Your task to perform on an android device: install app "Booking.com: Hotels and more" Image 0: 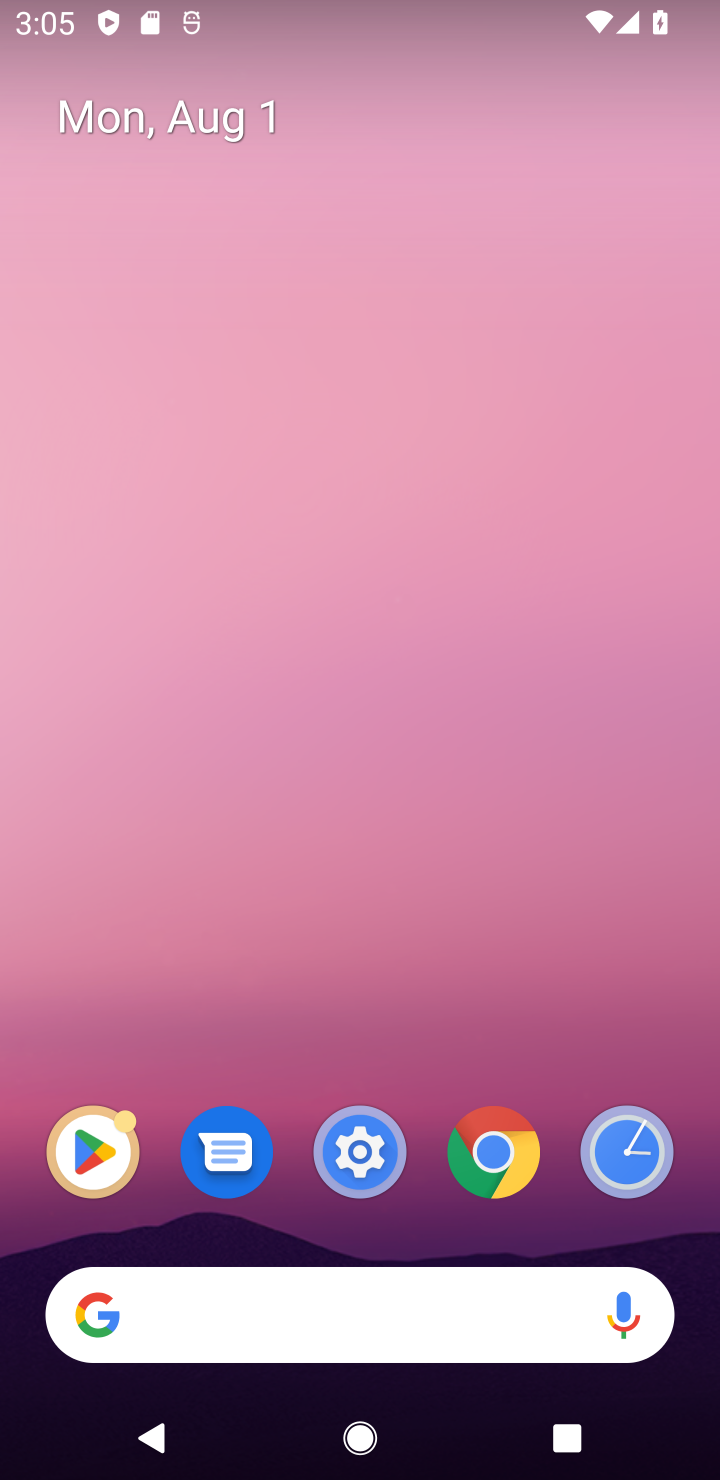
Step 0: click (101, 1141)
Your task to perform on an android device: install app "Booking.com: Hotels and more" Image 1: 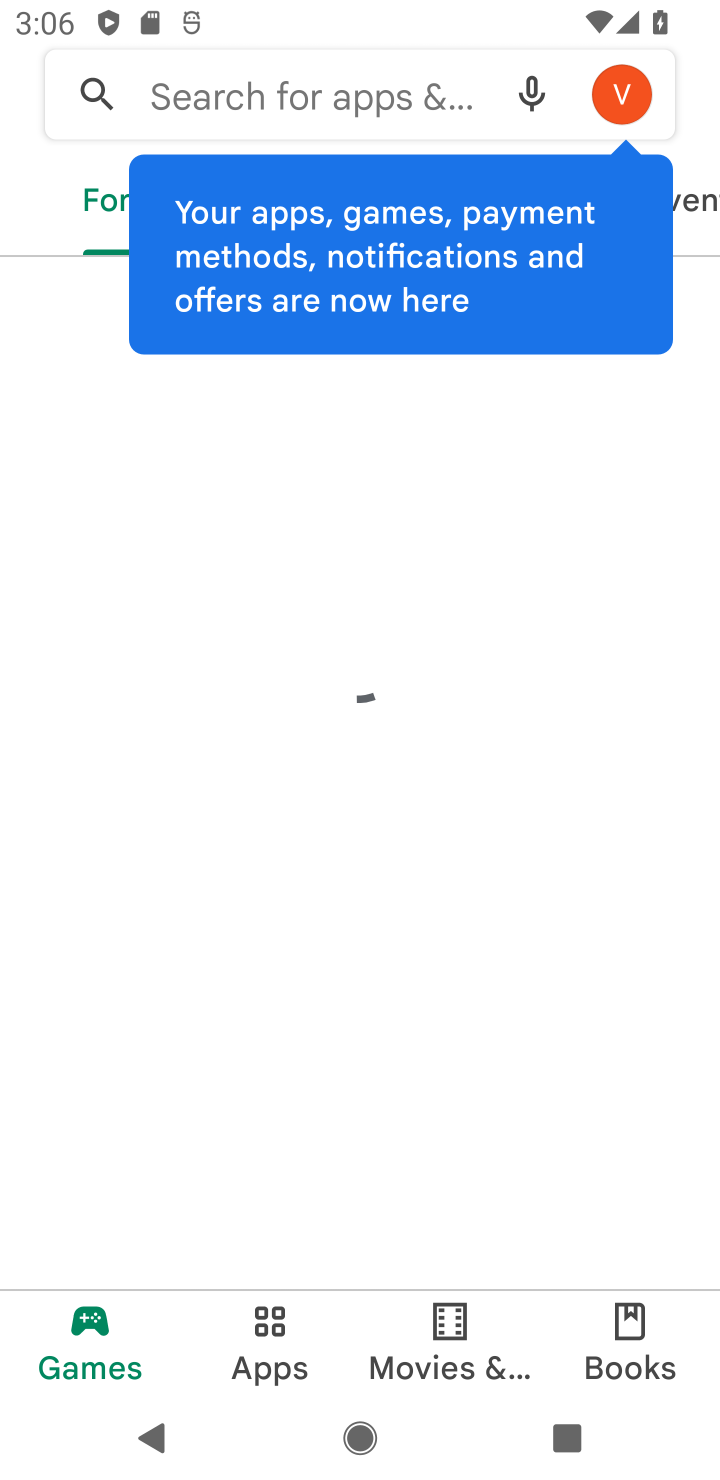
Step 1: click (385, 80)
Your task to perform on an android device: install app "Booking.com: Hotels and more" Image 2: 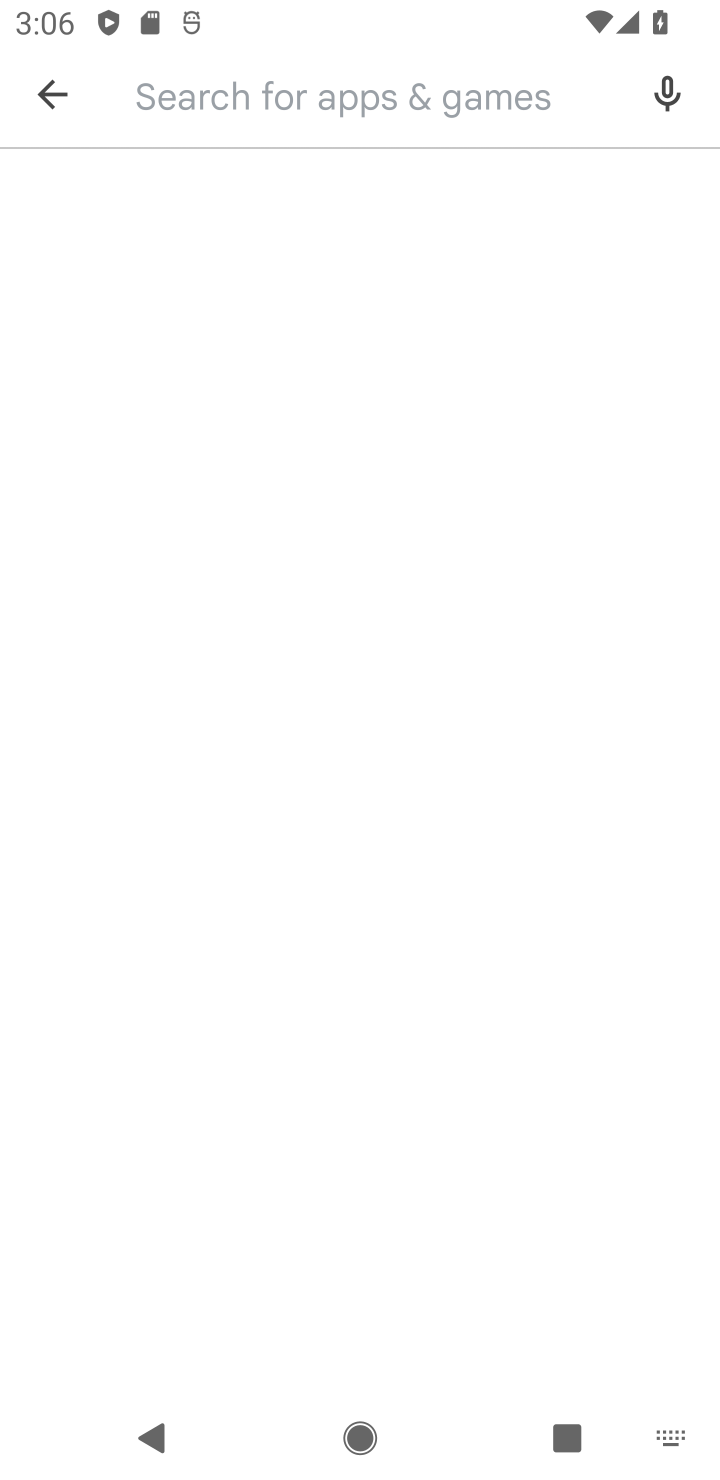
Step 2: drag from (540, 1471) to (691, 1478)
Your task to perform on an android device: install app "Booking.com: Hotels and more" Image 3: 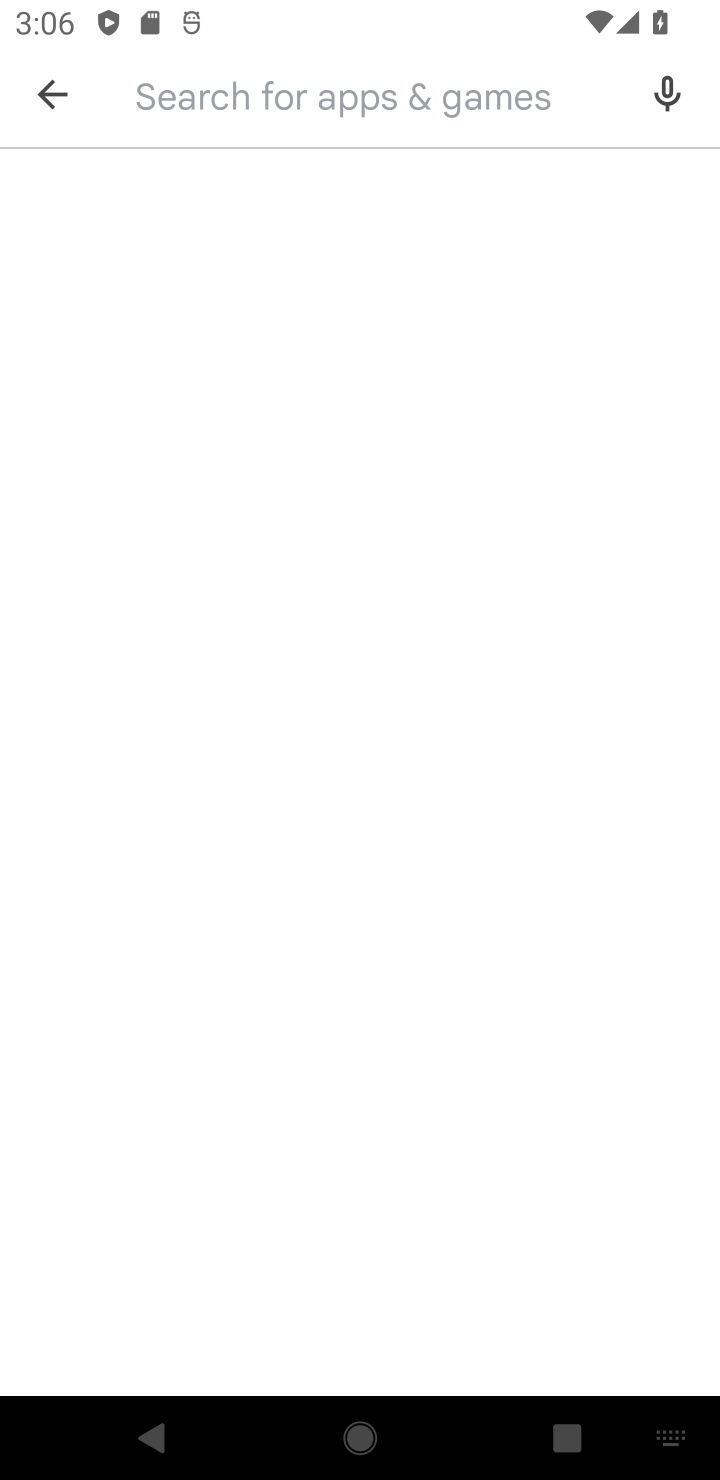
Step 3: type "Booking.com: Hotels and mor"
Your task to perform on an android device: install app "Booking.com: Hotels and more" Image 4: 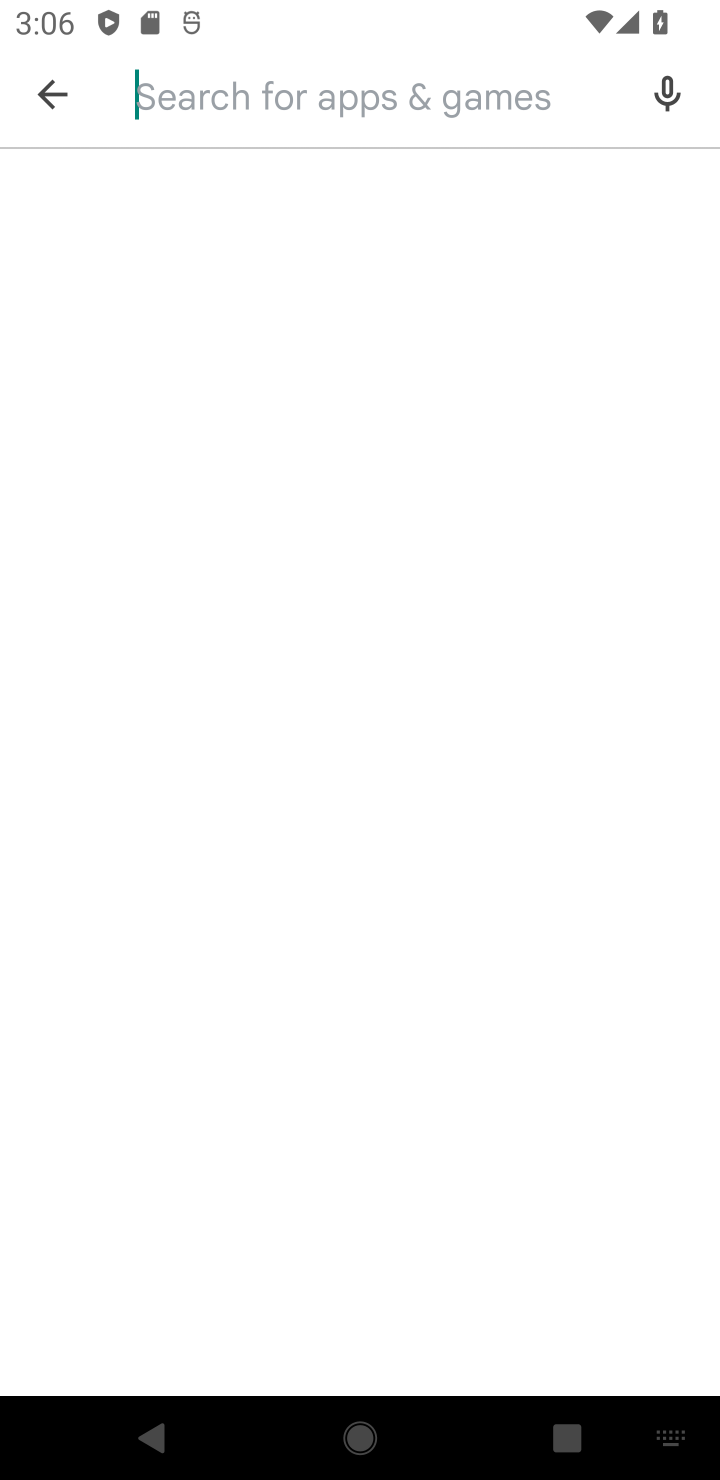
Step 4: click (686, 825)
Your task to perform on an android device: install app "Booking.com: Hotels and more" Image 5: 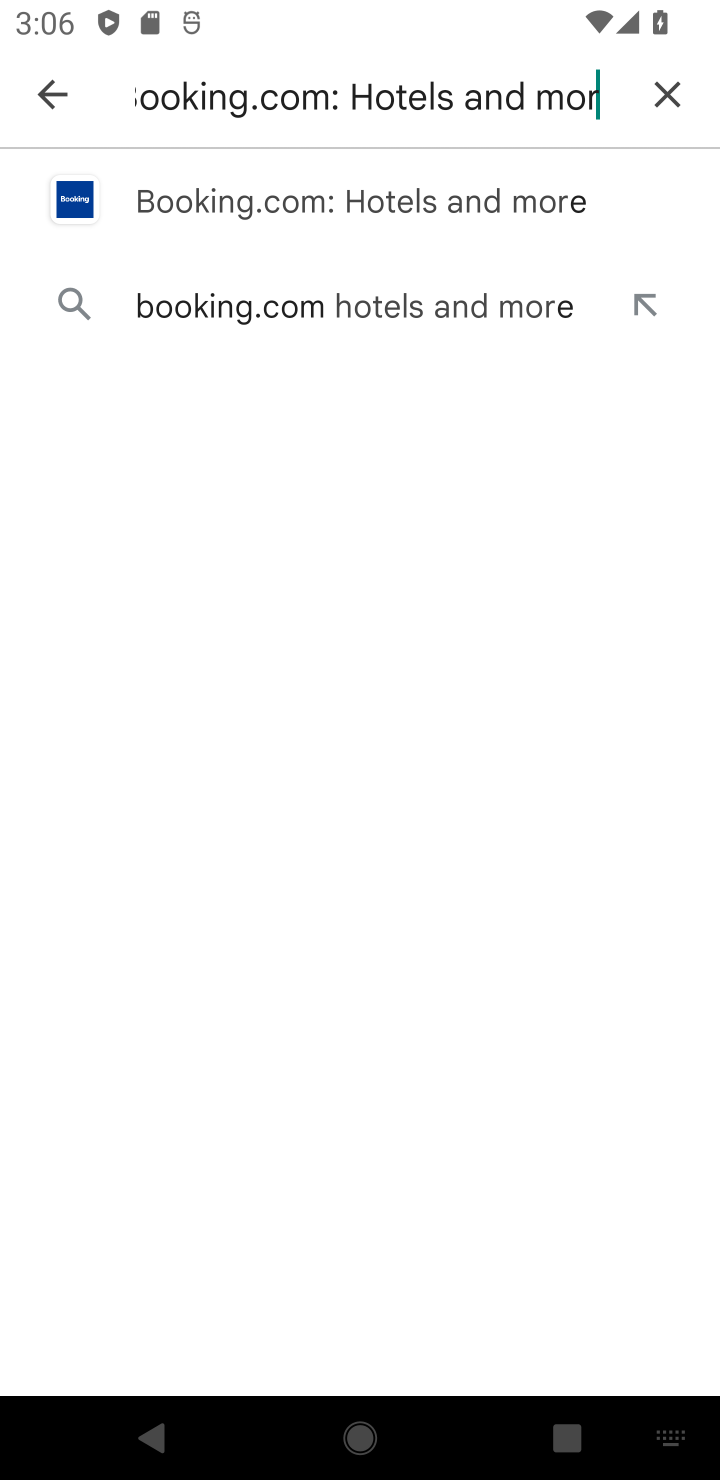
Step 5: click (234, 233)
Your task to perform on an android device: install app "Booking.com: Hotels and more" Image 6: 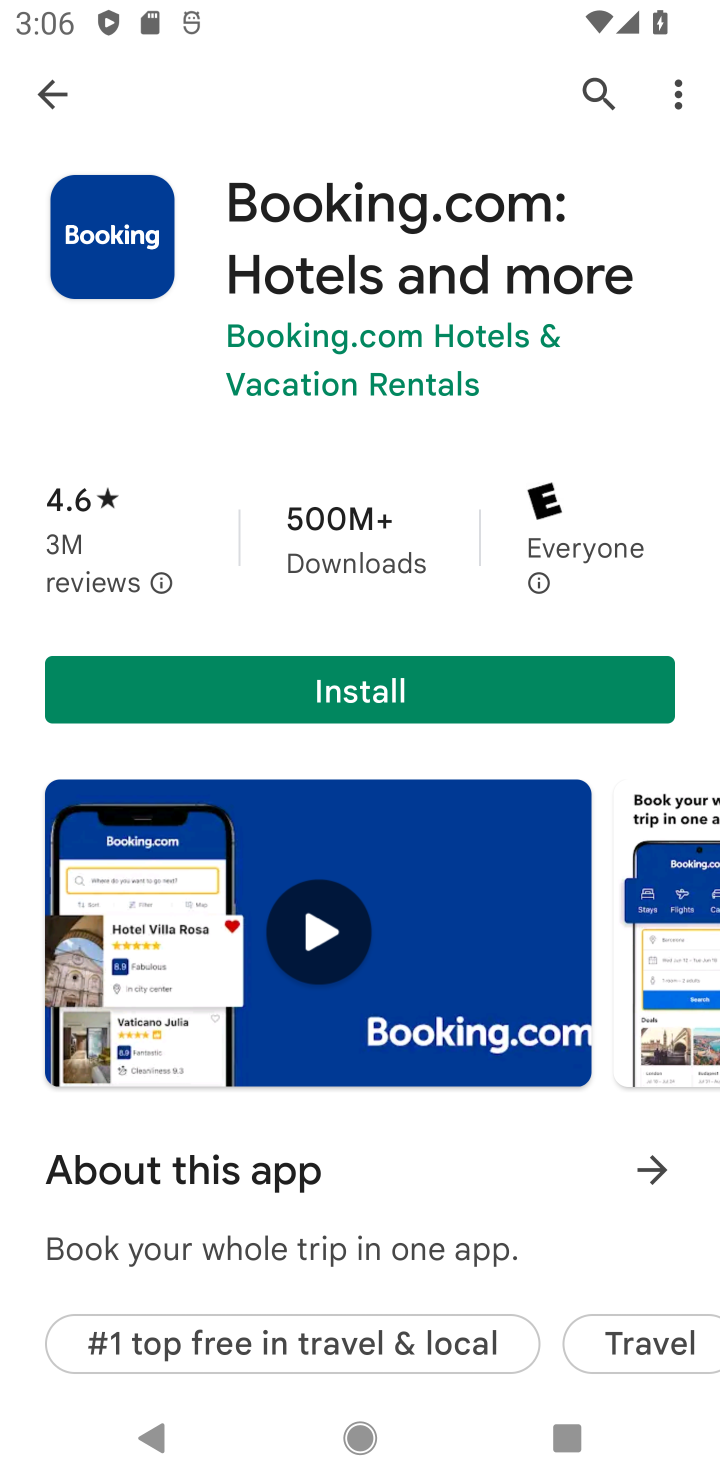
Step 6: click (323, 668)
Your task to perform on an android device: install app "Booking.com: Hotels and more" Image 7: 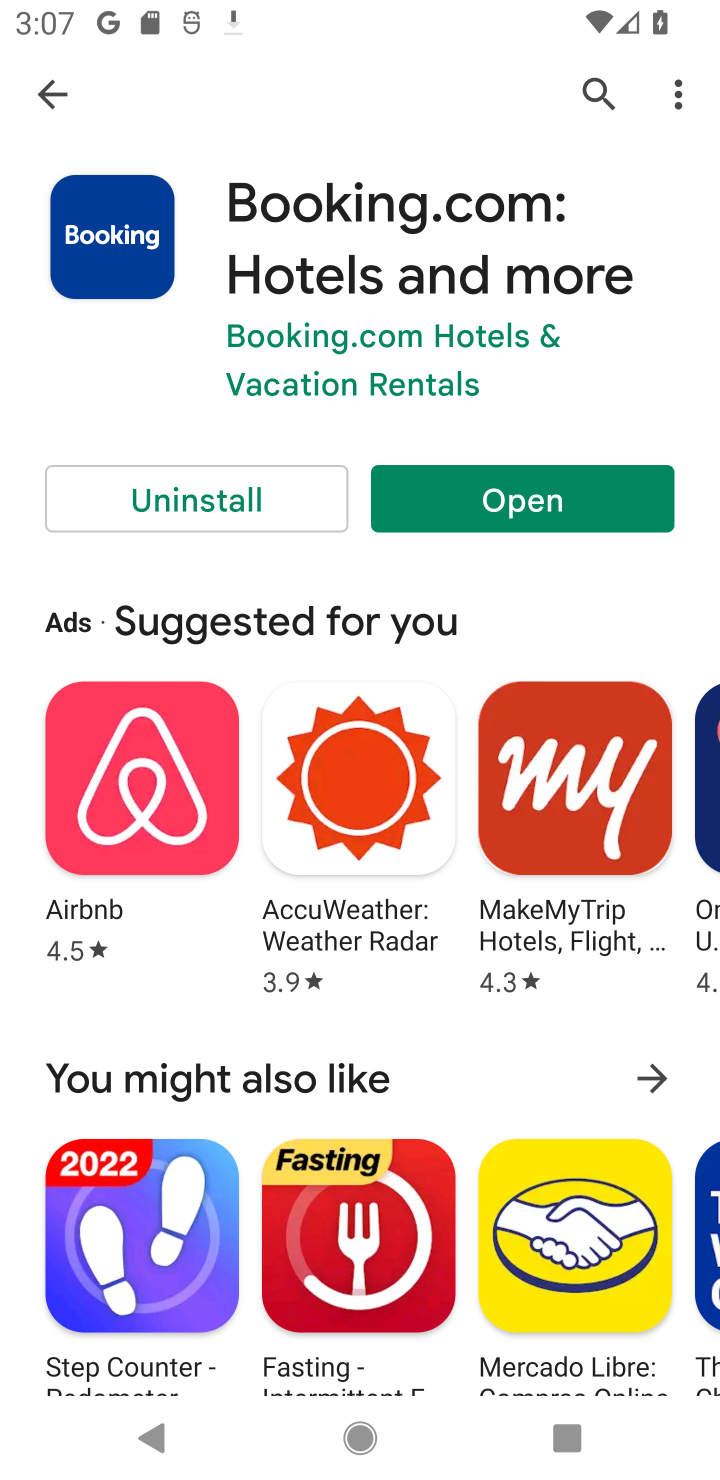
Step 7: click (597, 530)
Your task to perform on an android device: install app "Booking.com: Hotels and more" Image 8: 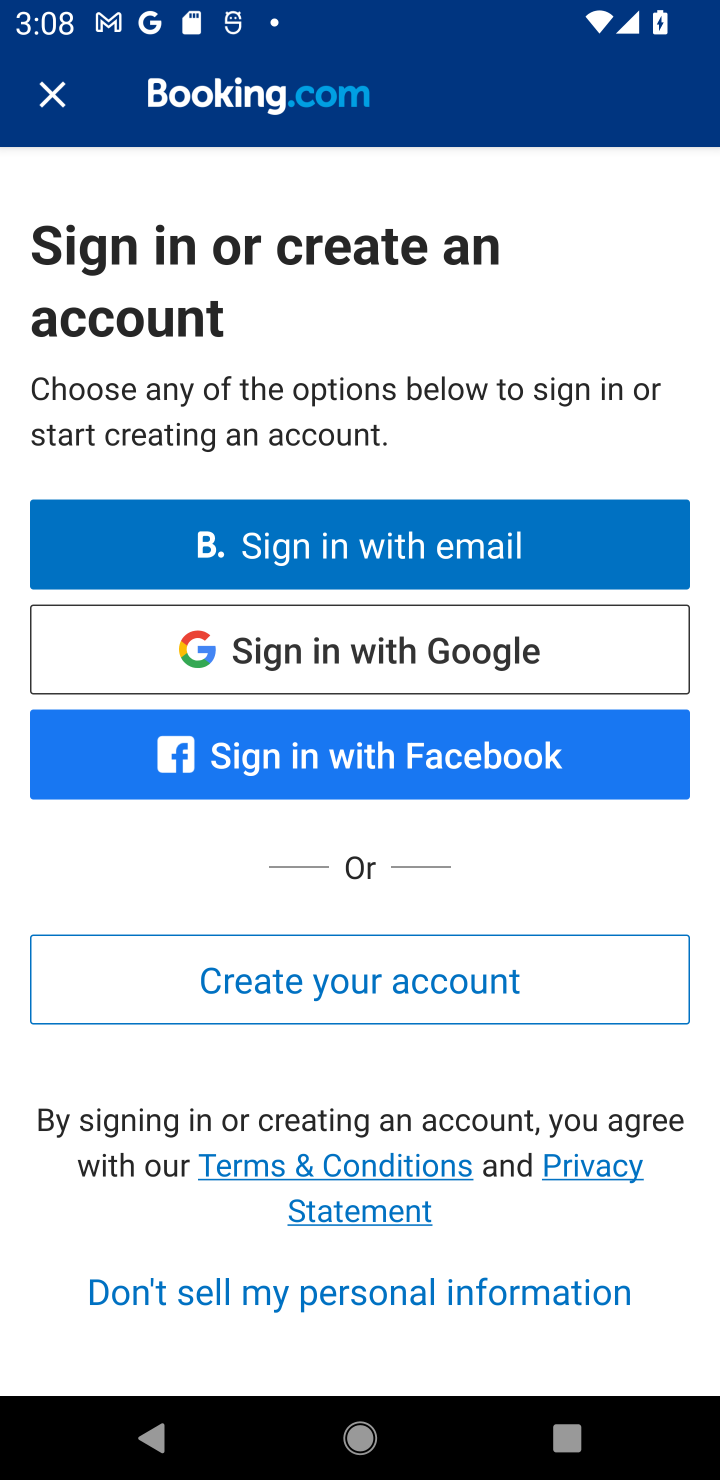
Step 8: task complete